Your task to perform on an android device: What's on my calendar today? Image 0: 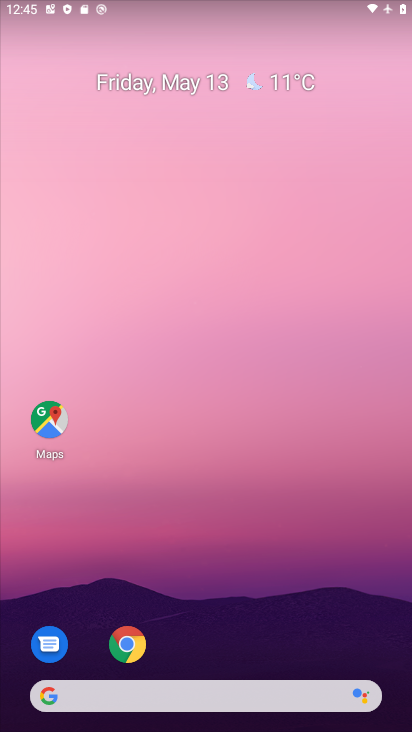
Step 0: drag from (200, 713) to (249, 94)
Your task to perform on an android device: What's on my calendar today? Image 1: 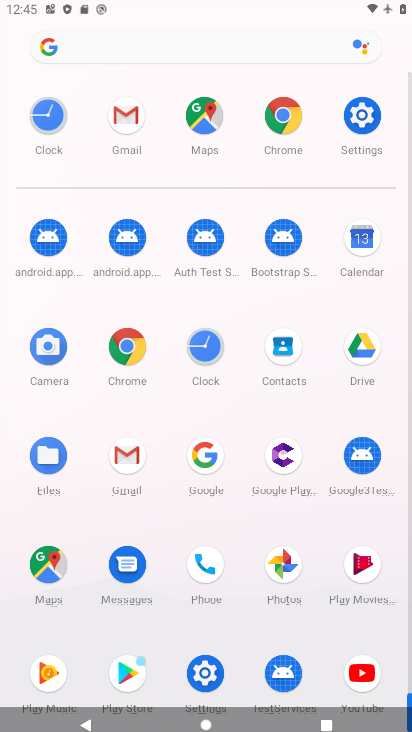
Step 1: click (359, 240)
Your task to perform on an android device: What's on my calendar today? Image 2: 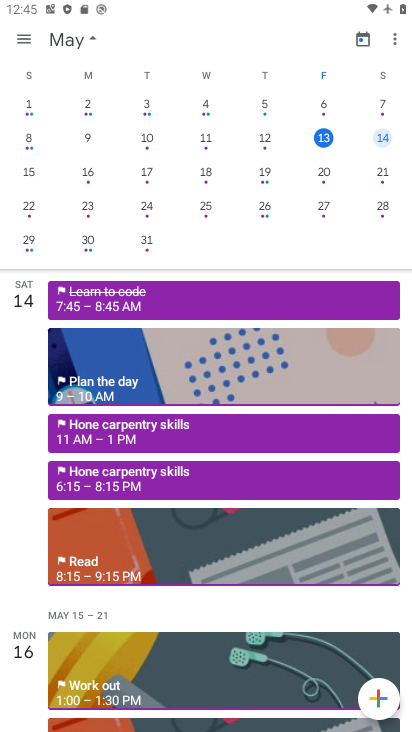
Step 2: click (323, 133)
Your task to perform on an android device: What's on my calendar today? Image 3: 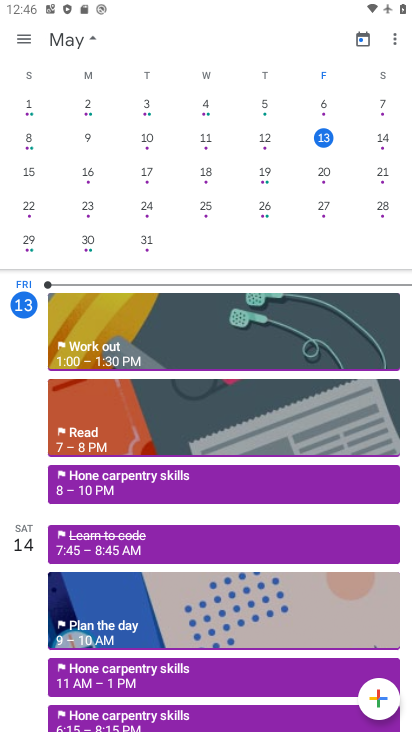
Step 3: task complete